Your task to perform on an android device: Open settings on Google Maps Image 0: 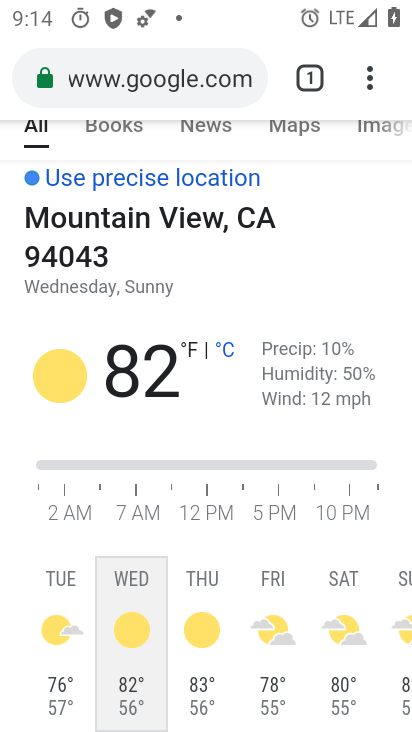
Step 0: press home button
Your task to perform on an android device: Open settings on Google Maps Image 1: 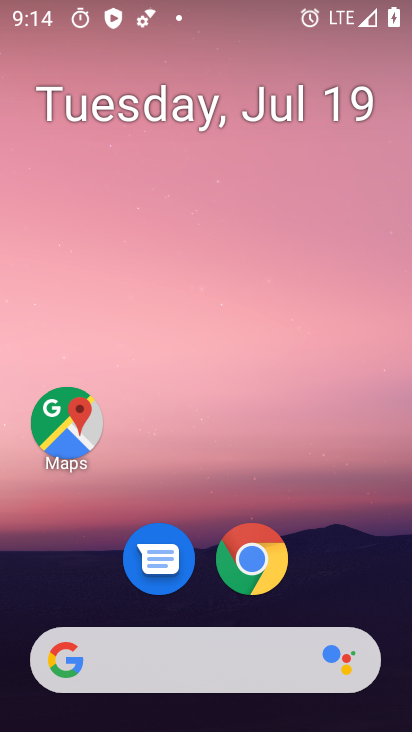
Step 1: click (73, 428)
Your task to perform on an android device: Open settings on Google Maps Image 2: 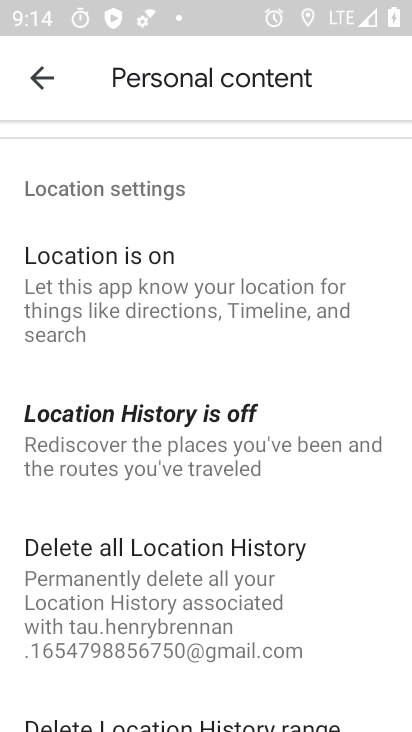
Step 2: task complete